Your task to perform on an android device: Open Google Chrome Image 0: 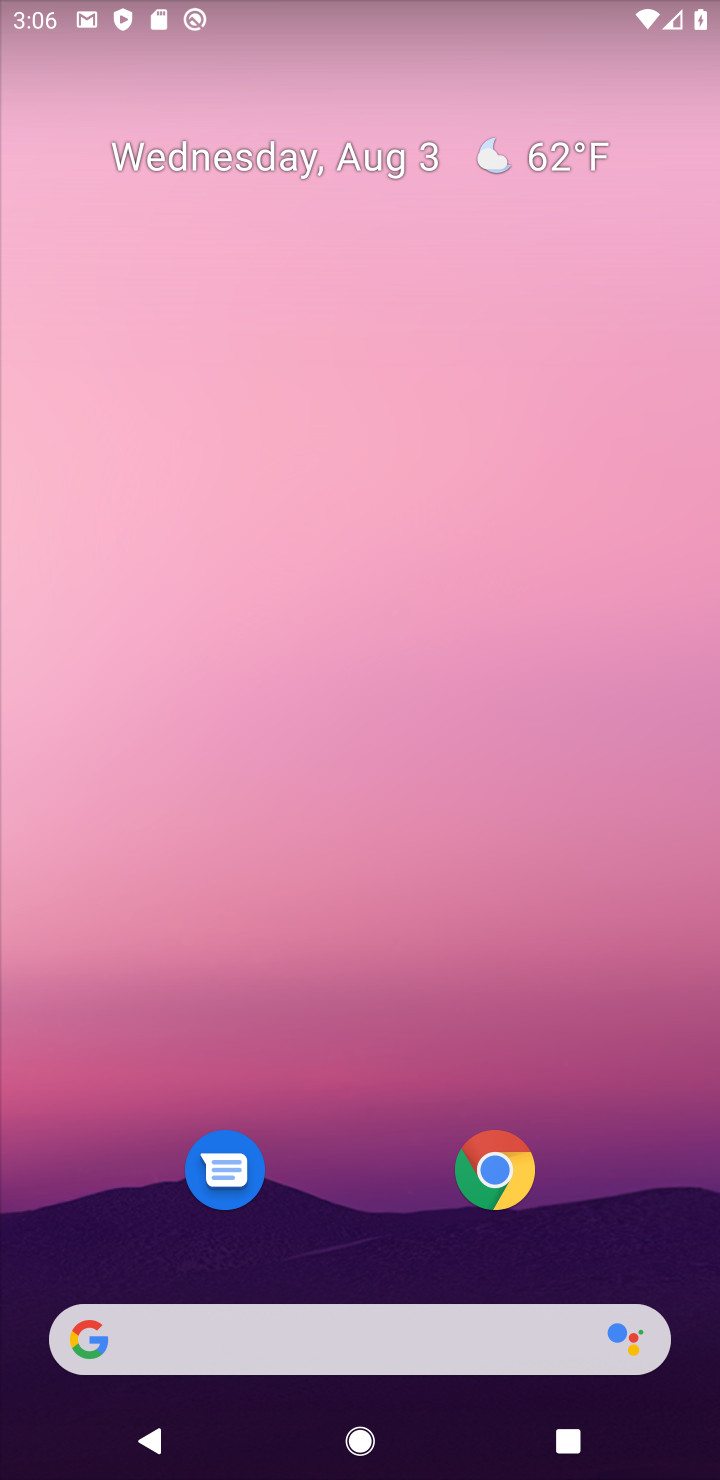
Step 0: click (499, 1165)
Your task to perform on an android device: Open Google Chrome Image 1: 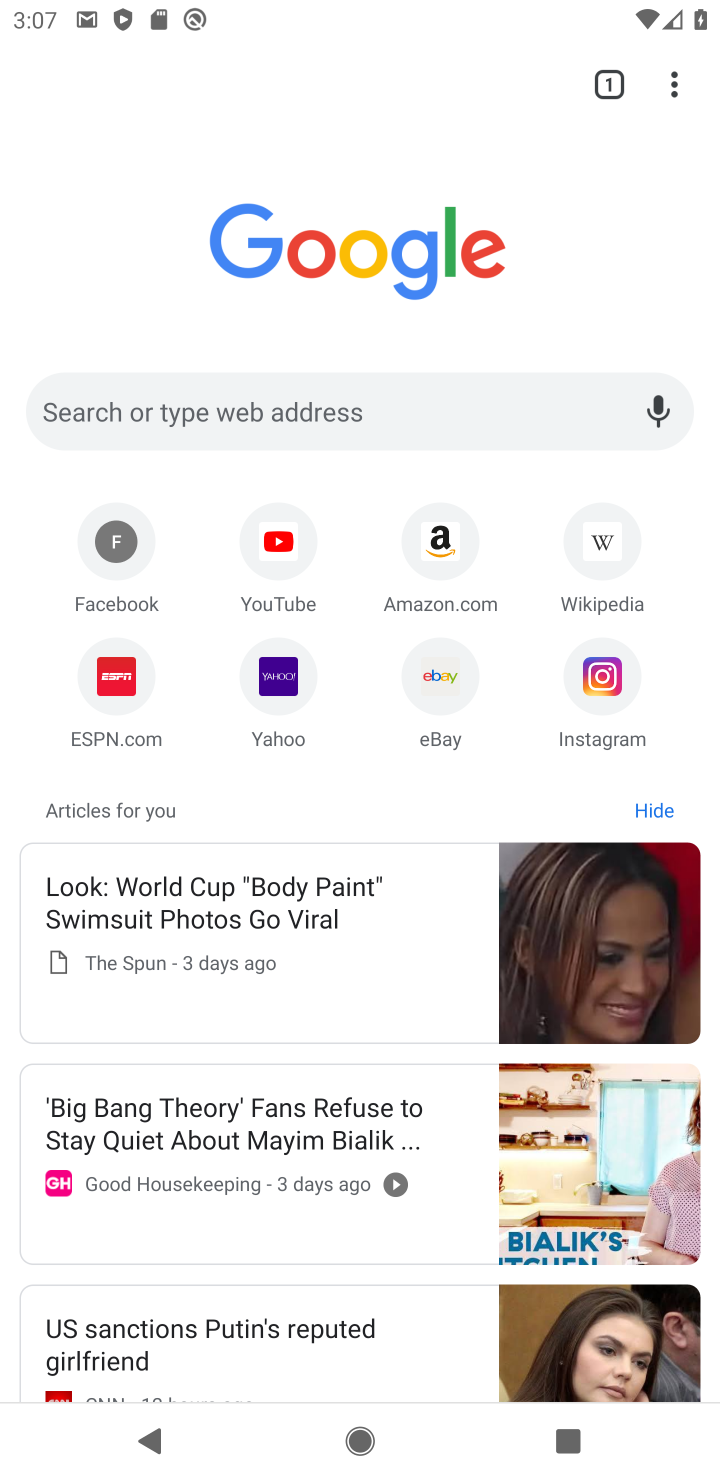
Step 1: task complete